Your task to perform on an android device: Go to eBay Image 0: 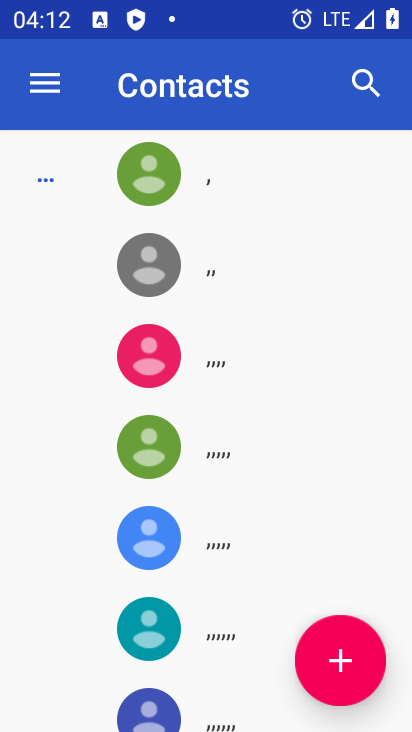
Step 0: press home button
Your task to perform on an android device: Go to eBay Image 1: 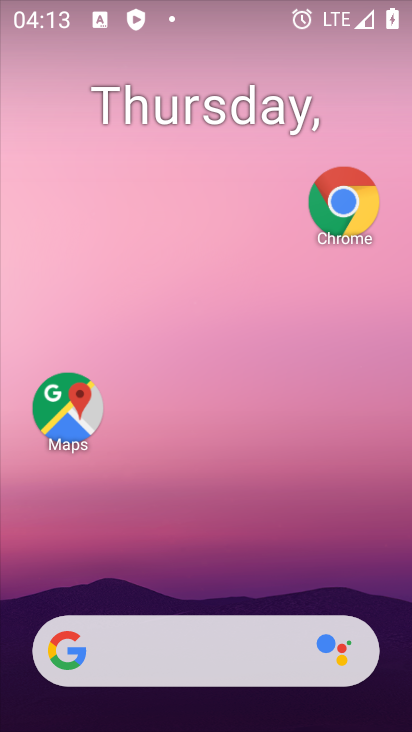
Step 1: drag from (321, 547) to (321, 6)
Your task to perform on an android device: Go to eBay Image 2: 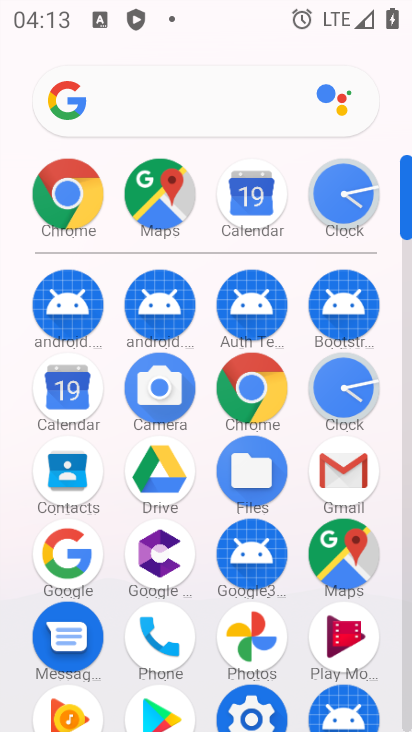
Step 2: drag from (248, 397) to (258, 453)
Your task to perform on an android device: Go to eBay Image 3: 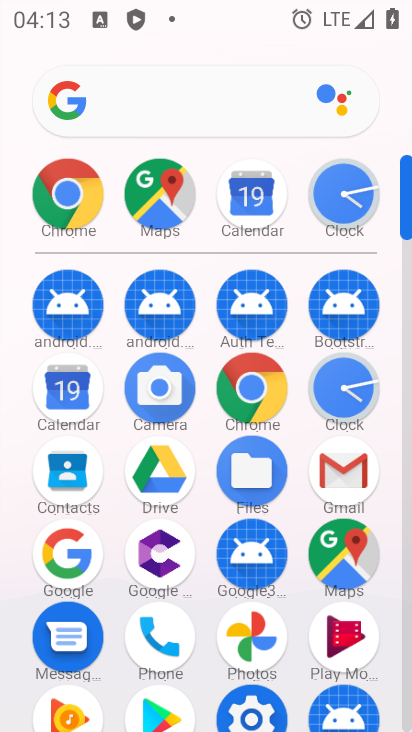
Step 3: click (239, 416)
Your task to perform on an android device: Go to eBay Image 4: 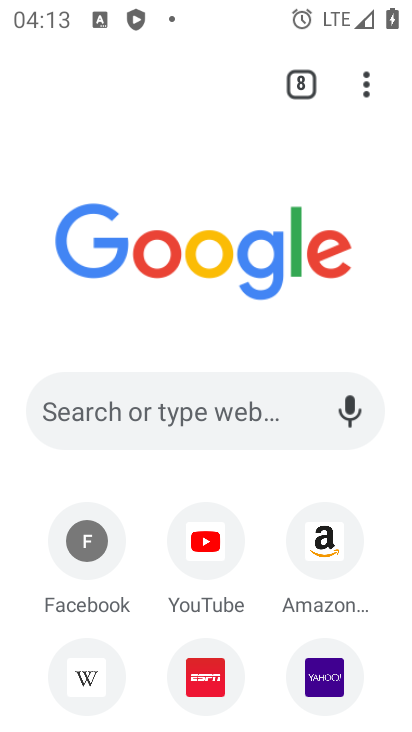
Step 4: click (231, 406)
Your task to perform on an android device: Go to eBay Image 5: 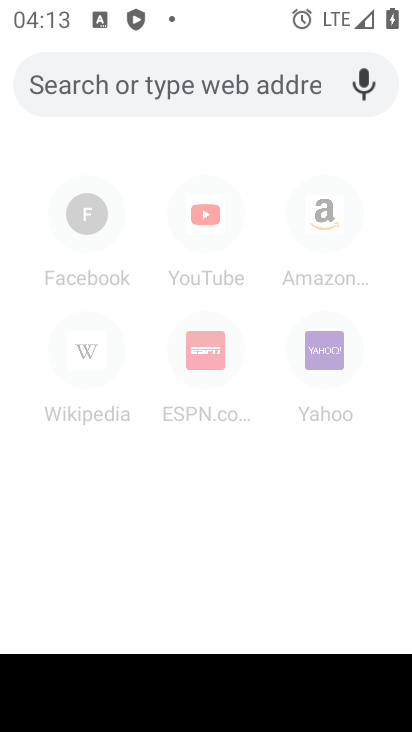
Step 5: type "ebay"
Your task to perform on an android device: Go to eBay Image 6: 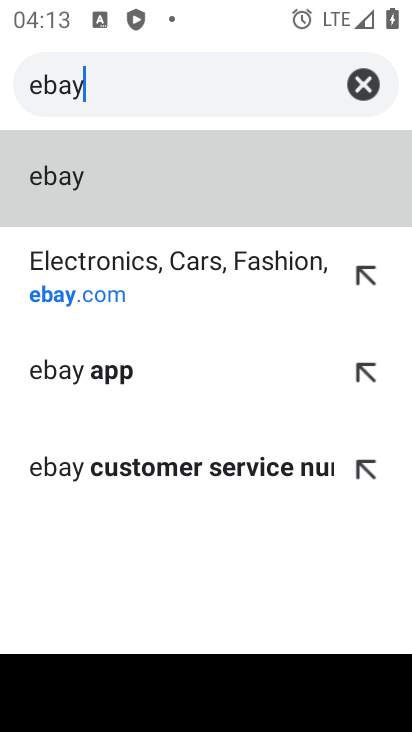
Step 6: click (125, 275)
Your task to perform on an android device: Go to eBay Image 7: 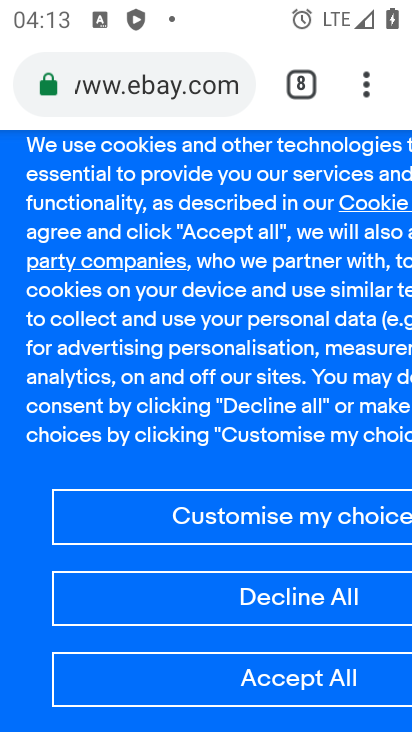
Step 7: task complete